Your task to perform on an android device: open app "Facebook Lite" (install if not already installed) and enter user name: "suppers@inbox.com" and password: "downplayed" Image 0: 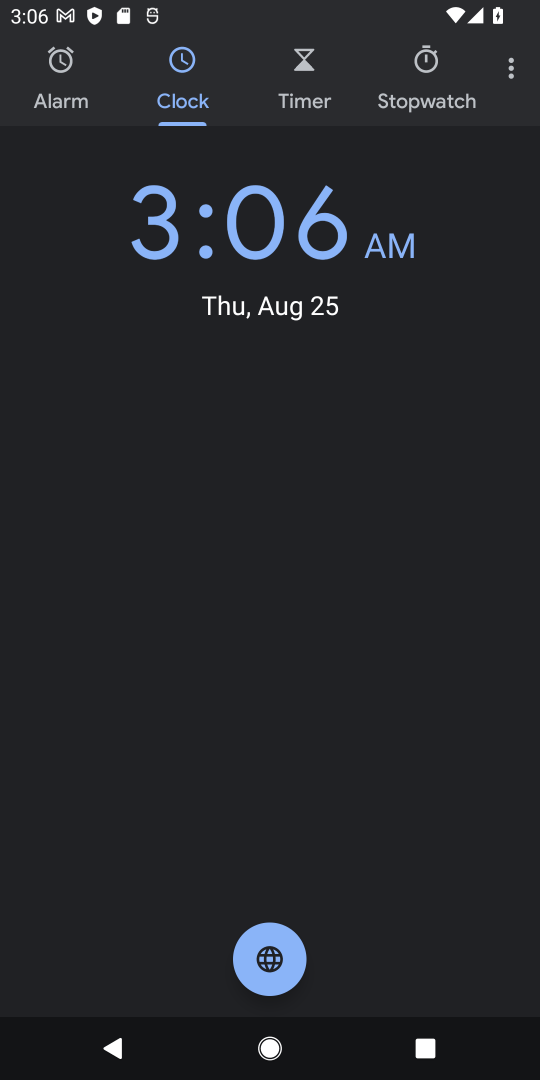
Step 0: press home button
Your task to perform on an android device: open app "Facebook Lite" (install if not already installed) and enter user name: "suppers@inbox.com" and password: "downplayed" Image 1: 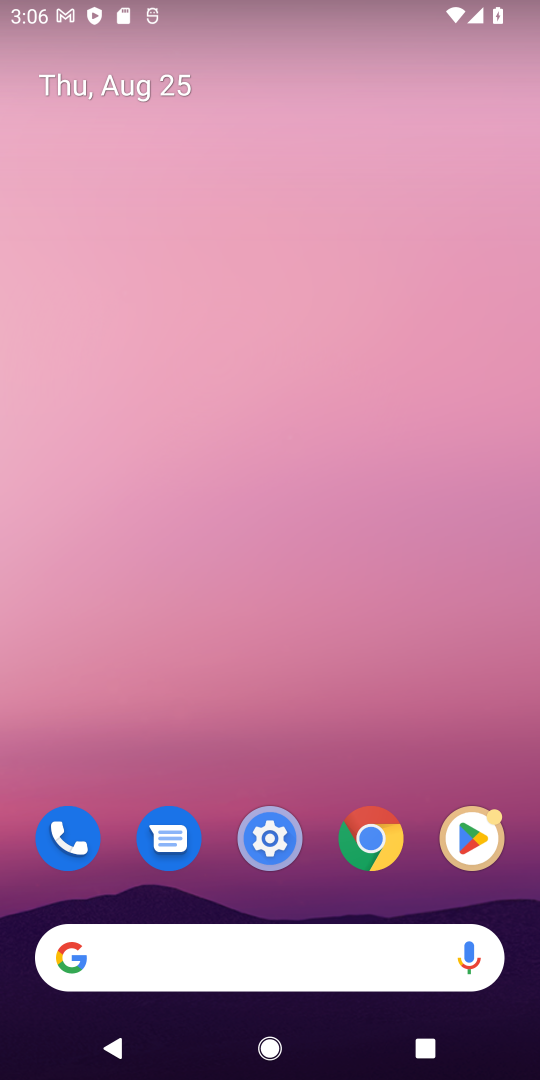
Step 1: drag from (270, 620) to (228, 178)
Your task to perform on an android device: open app "Facebook Lite" (install if not already installed) and enter user name: "suppers@inbox.com" and password: "downplayed" Image 2: 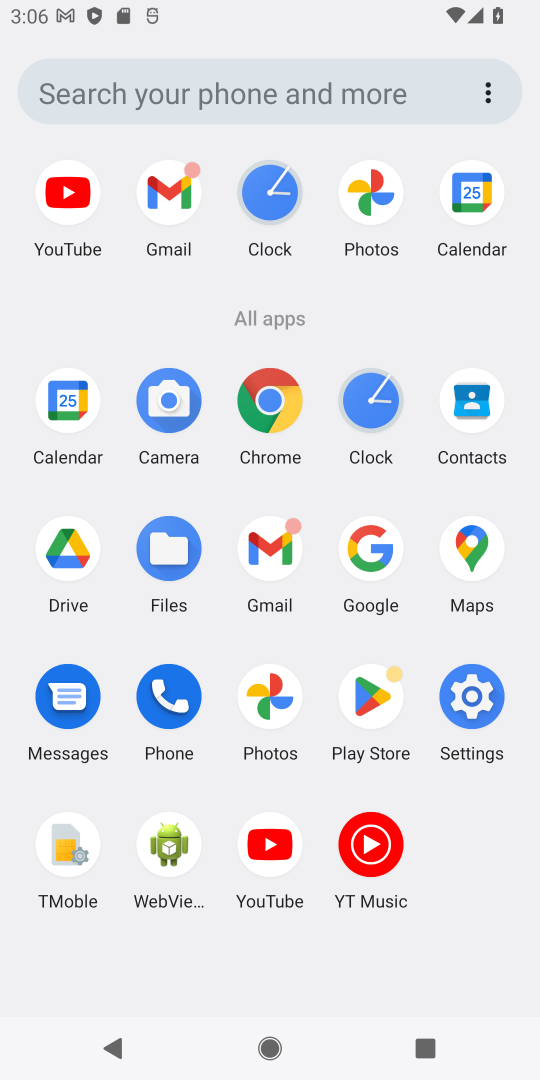
Step 2: click (378, 674)
Your task to perform on an android device: open app "Facebook Lite" (install if not already installed) and enter user name: "suppers@inbox.com" and password: "downplayed" Image 3: 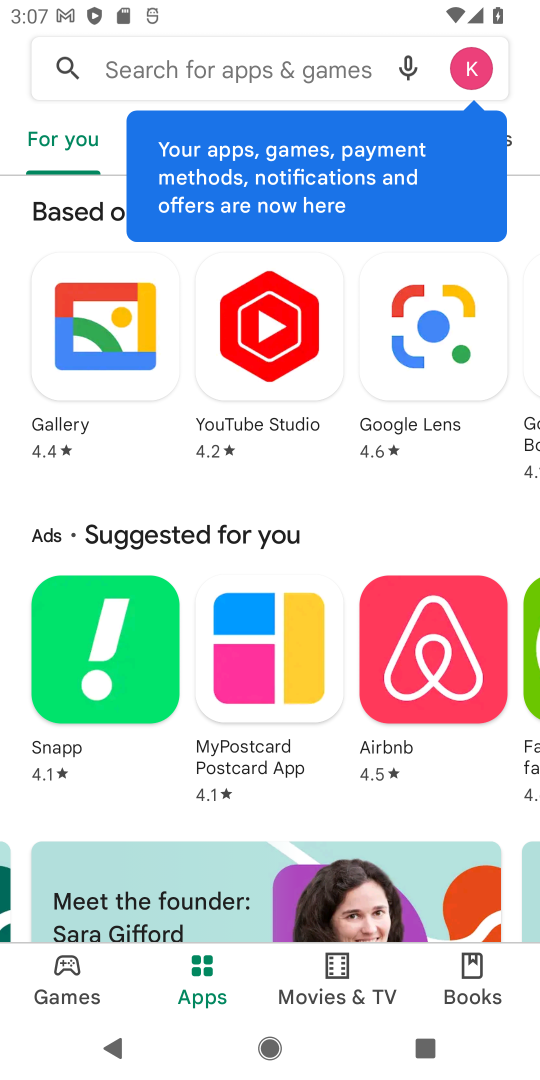
Step 3: click (233, 82)
Your task to perform on an android device: open app "Facebook Lite" (install if not already installed) and enter user name: "suppers@inbox.com" and password: "downplayed" Image 4: 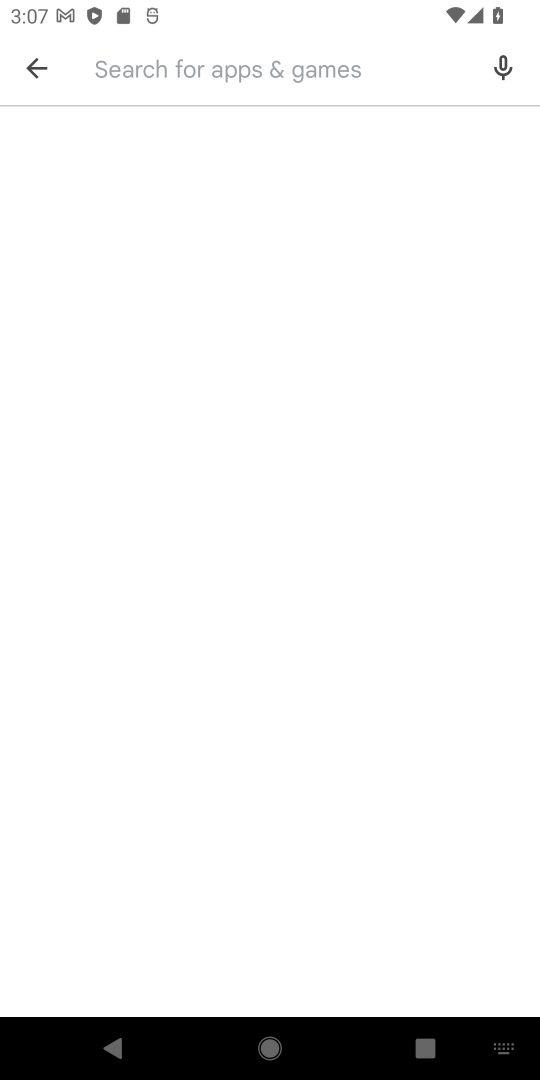
Step 4: type "Facebook Lite"
Your task to perform on an android device: open app "Facebook Lite" (install if not already installed) and enter user name: "suppers@inbox.com" and password: "downplayed" Image 5: 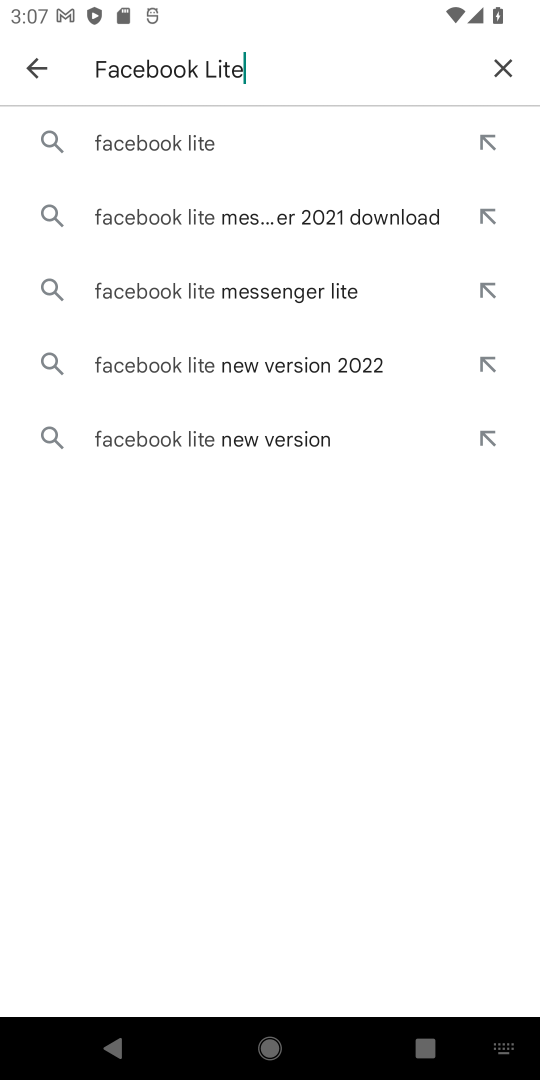
Step 5: click (111, 141)
Your task to perform on an android device: open app "Facebook Lite" (install if not already installed) and enter user name: "suppers@inbox.com" and password: "downplayed" Image 6: 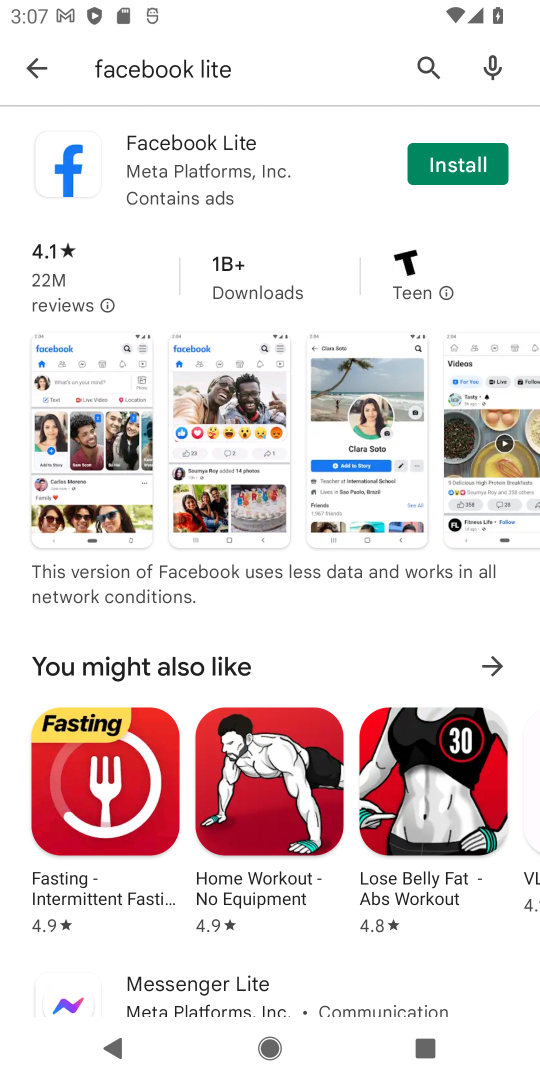
Step 6: click (454, 165)
Your task to perform on an android device: open app "Facebook Lite" (install if not already installed) and enter user name: "suppers@inbox.com" and password: "downplayed" Image 7: 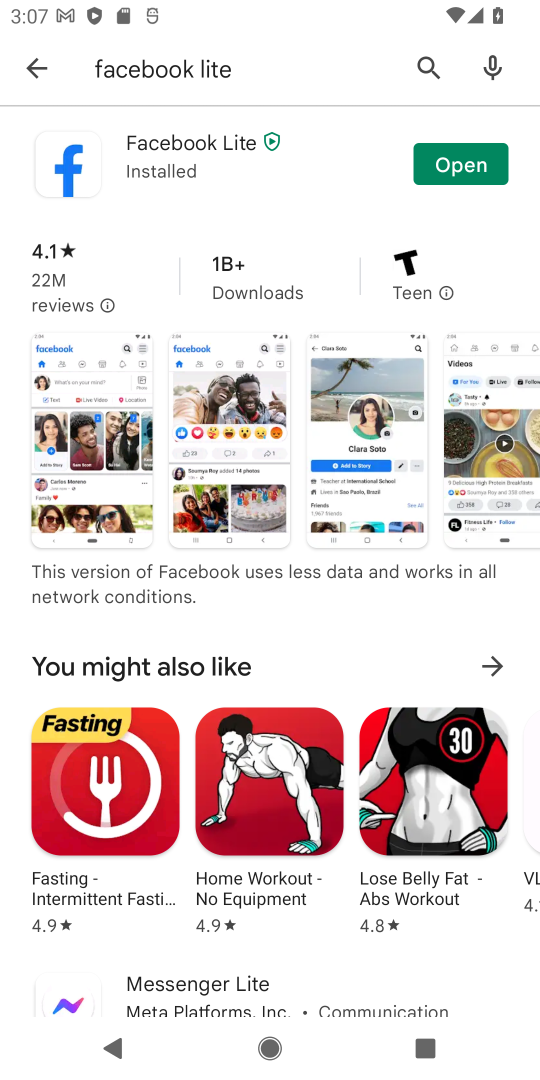
Step 7: click (420, 166)
Your task to perform on an android device: open app "Facebook Lite" (install if not already installed) and enter user name: "suppers@inbox.com" and password: "downplayed" Image 8: 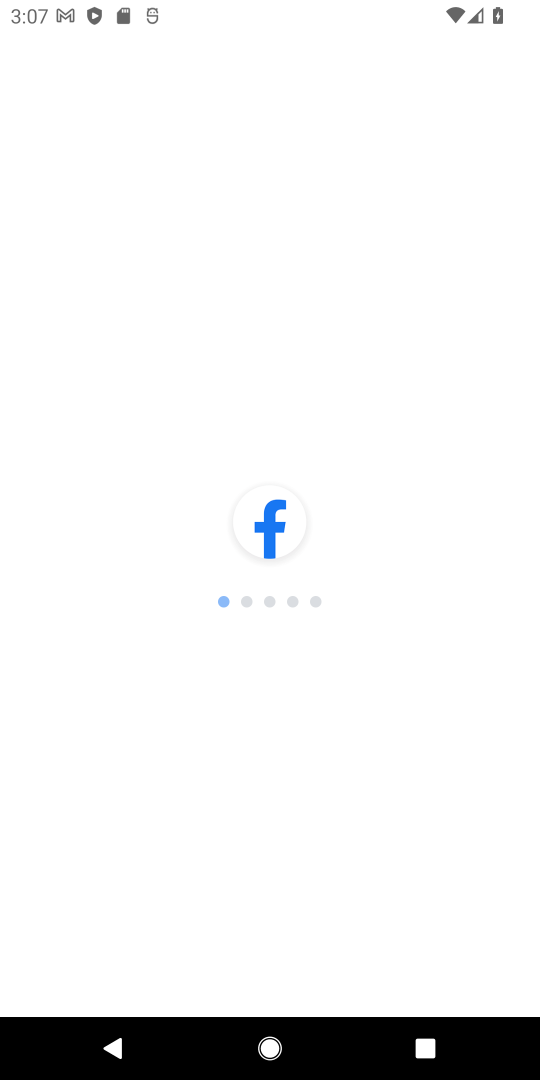
Step 8: task complete